Your task to perform on an android device: check data usage Image 0: 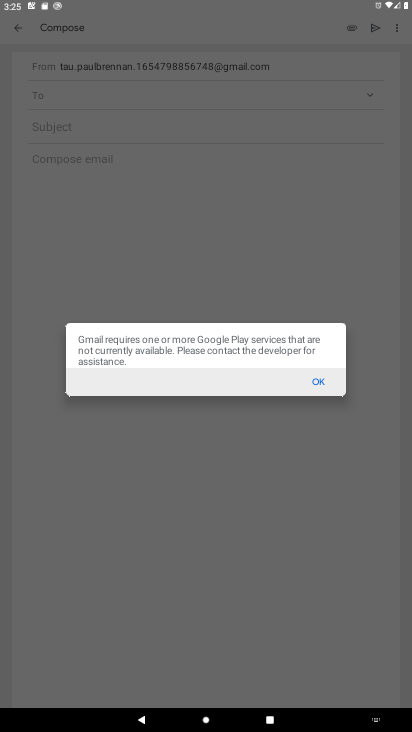
Step 0: click (317, 377)
Your task to perform on an android device: check data usage Image 1: 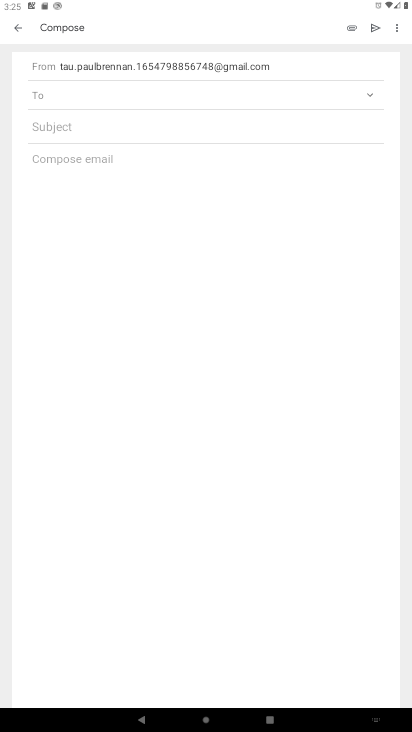
Step 1: click (23, 22)
Your task to perform on an android device: check data usage Image 2: 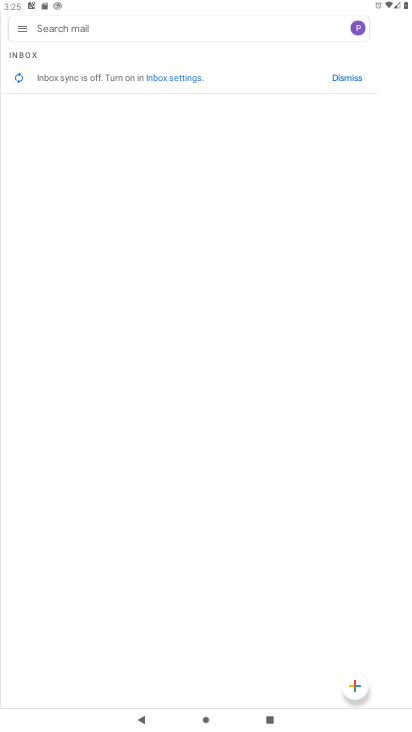
Step 2: press back button
Your task to perform on an android device: check data usage Image 3: 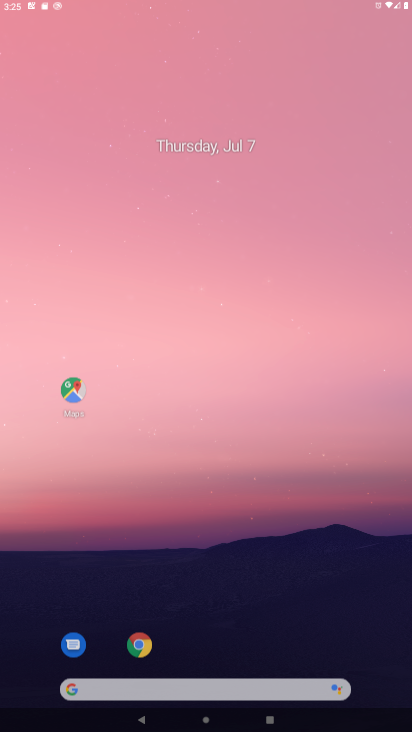
Step 3: press back button
Your task to perform on an android device: check data usage Image 4: 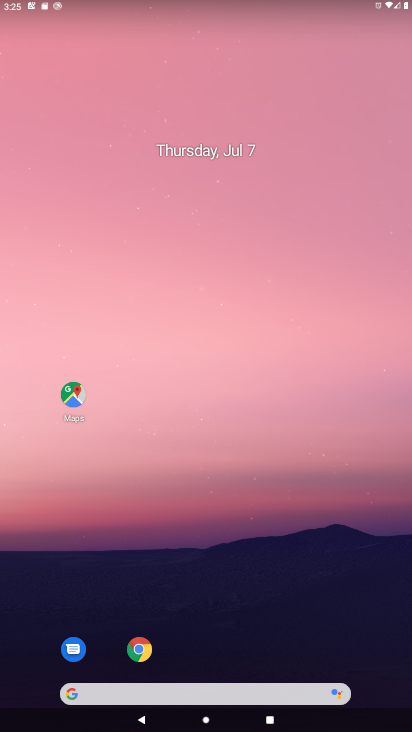
Step 4: drag from (265, 648) to (331, 8)
Your task to perform on an android device: check data usage Image 5: 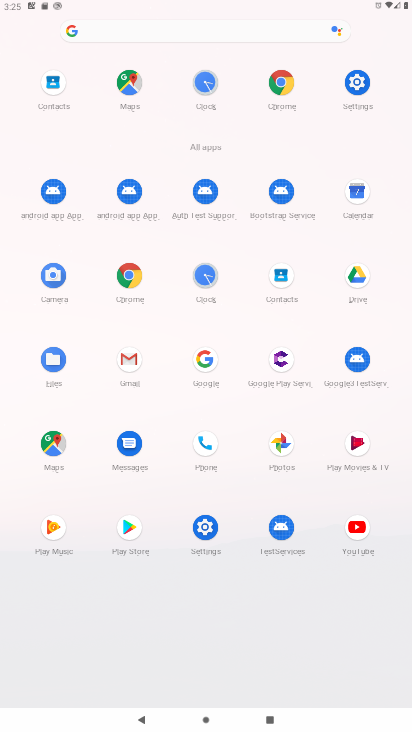
Step 5: click (362, 82)
Your task to perform on an android device: check data usage Image 6: 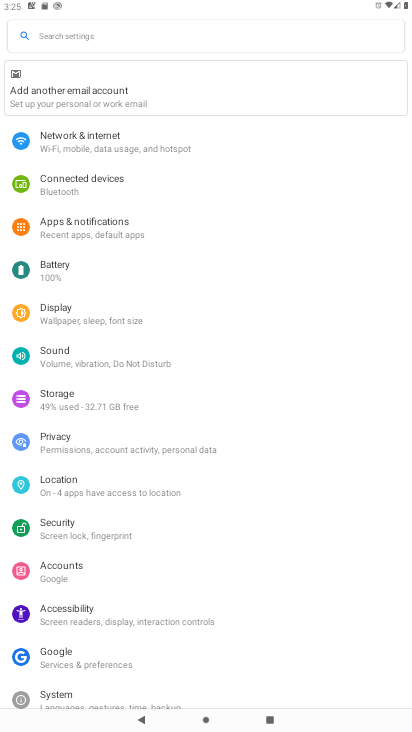
Step 6: click (94, 145)
Your task to perform on an android device: check data usage Image 7: 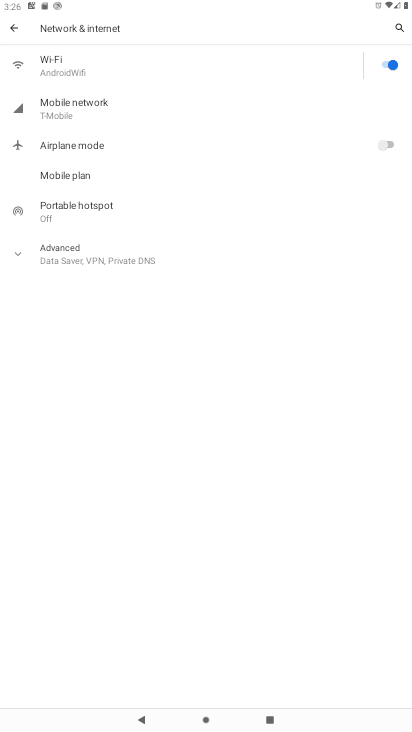
Step 7: click (90, 108)
Your task to perform on an android device: check data usage Image 8: 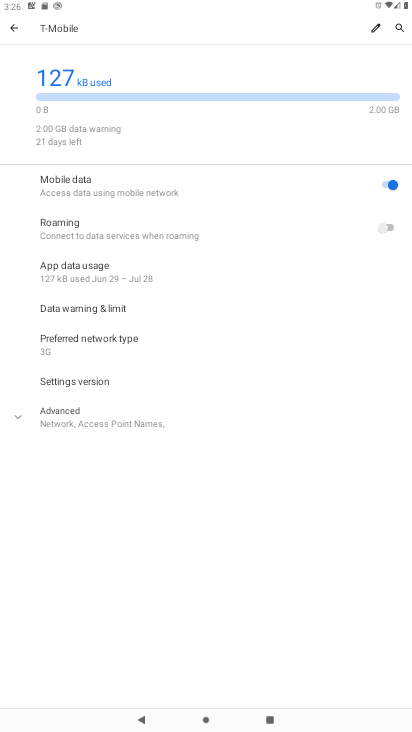
Step 8: click (93, 272)
Your task to perform on an android device: check data usage Image 9: 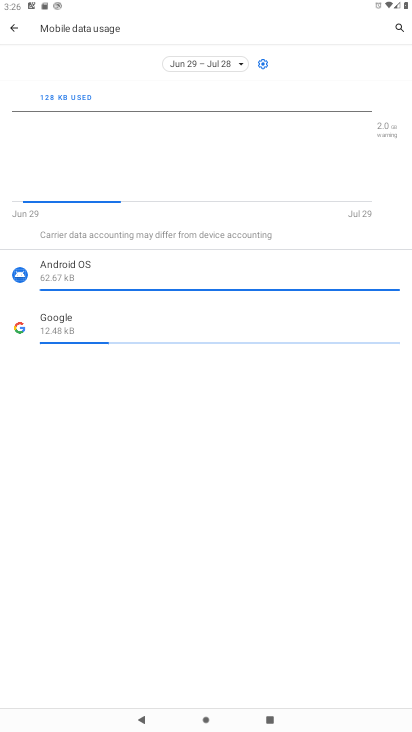
Step 9: task complete